Your task to perform on an android device: turn on showing notifications on the lock screen Image 0: 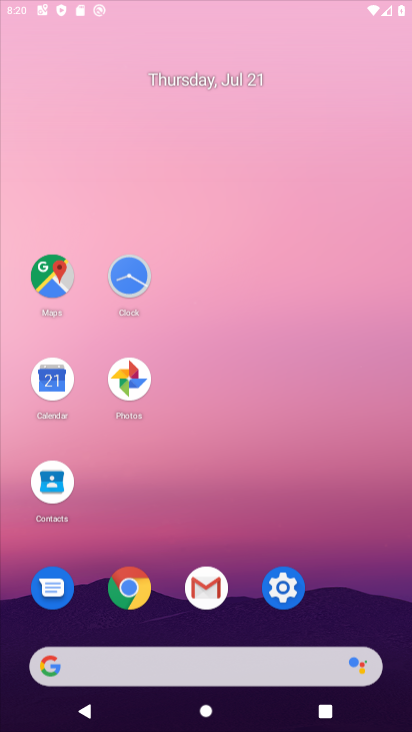
Step 0: click (279, 594)
Your task to perform on an android device: turn on showing notifications on the lock screen Image 1: 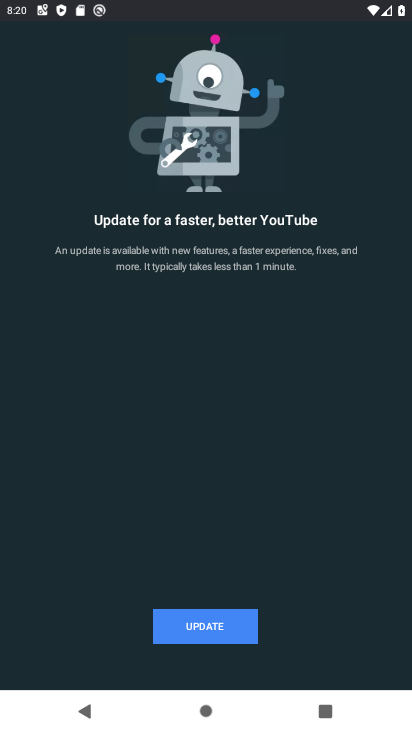
Step 1: press home button
Your task to perform on an android device: turn on showing notifications on the lock screen Image 2: 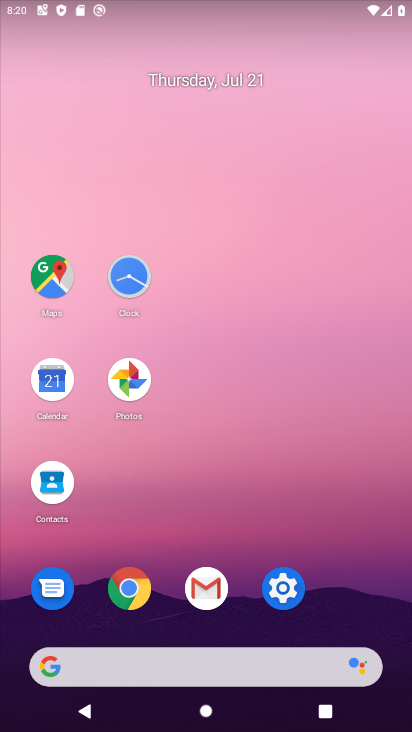
Step 2: click (286, 582)
Your task to perform on an android device: turn on showing notifications on the lock screen Image 3: 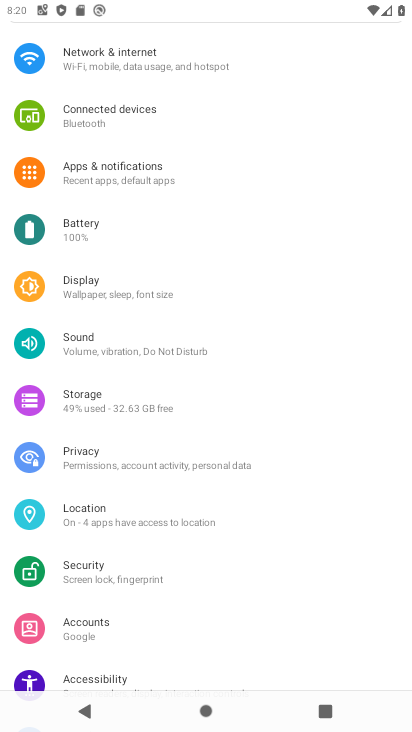
Step 3: click (120, 165)
Your task to perform on an android device: turn on showing notifications on the lock screen Image 4: 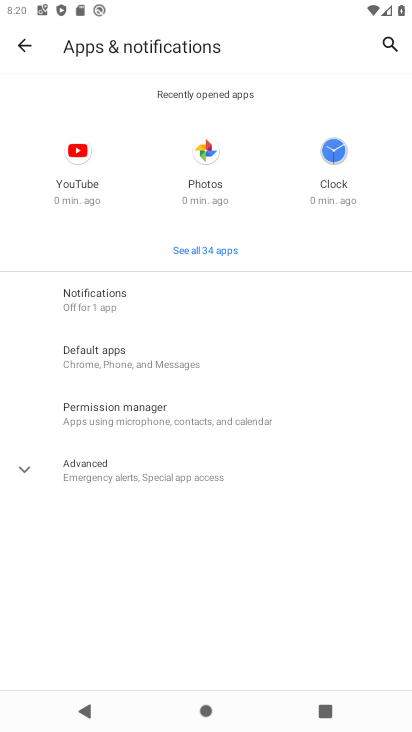
Step 4: click (94, 296)
Your task to perform on an android device: turn on showing notifications on the lock screen Image 5: 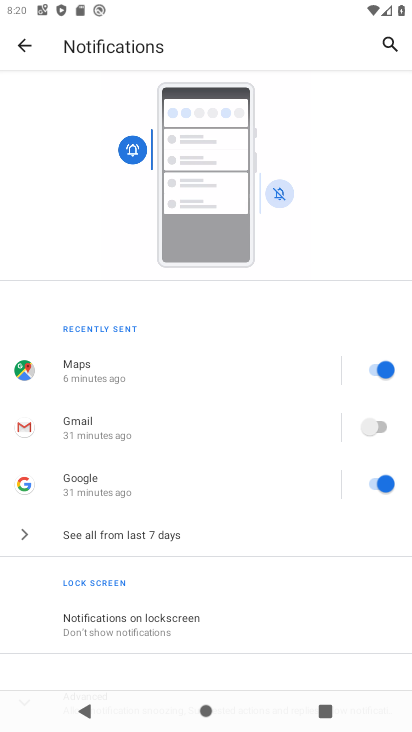
Step 5: click (140, 615)
Your task to perform on an android device: turn on showing notifications on the lock screen Image 6: 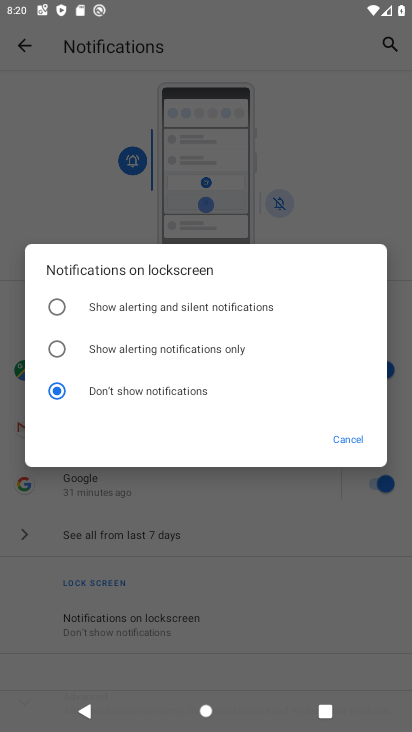
Step 6: click (51, 304)
Your task to perform on an android device: turn on showing notifications on the lock screen Image 7: 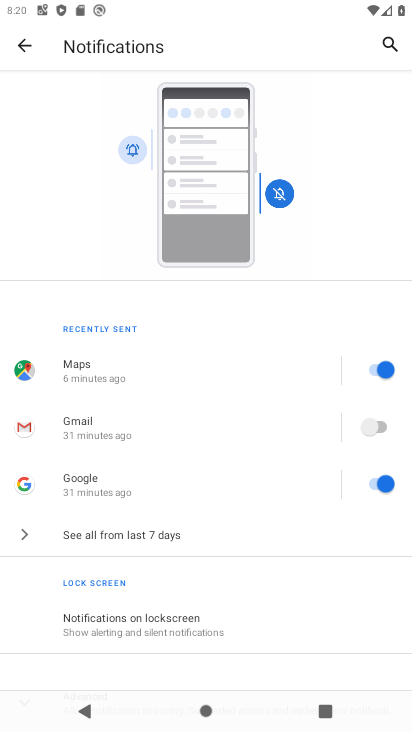
Step 7: task complete